Your task to perform on an android device: Search for "razer blade" on costco, select the first entry, and add it to the cart. Image 0: 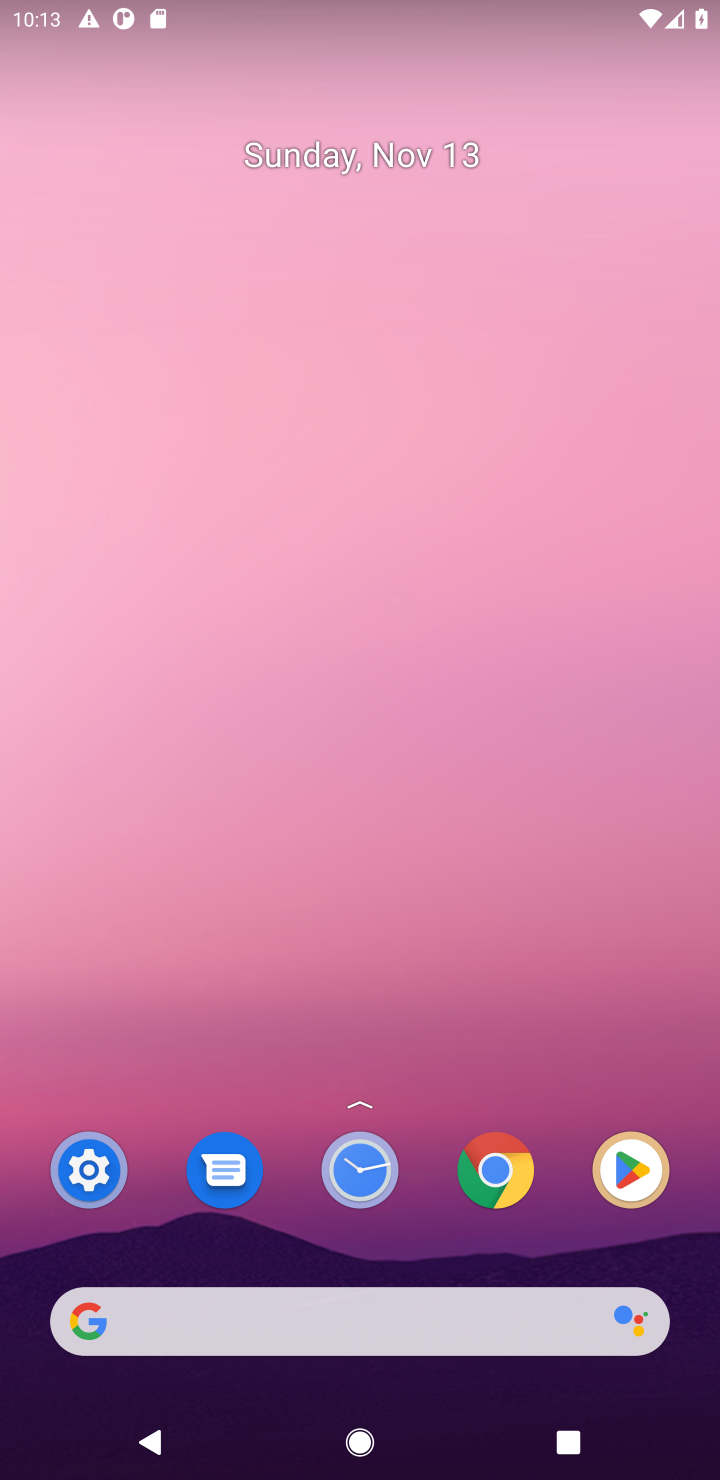
Step 0: click (440, 1316)
Your task to perform on an android device: Search for "razer blade" on costco, select the first entry, and add it to the cart. Image 1: 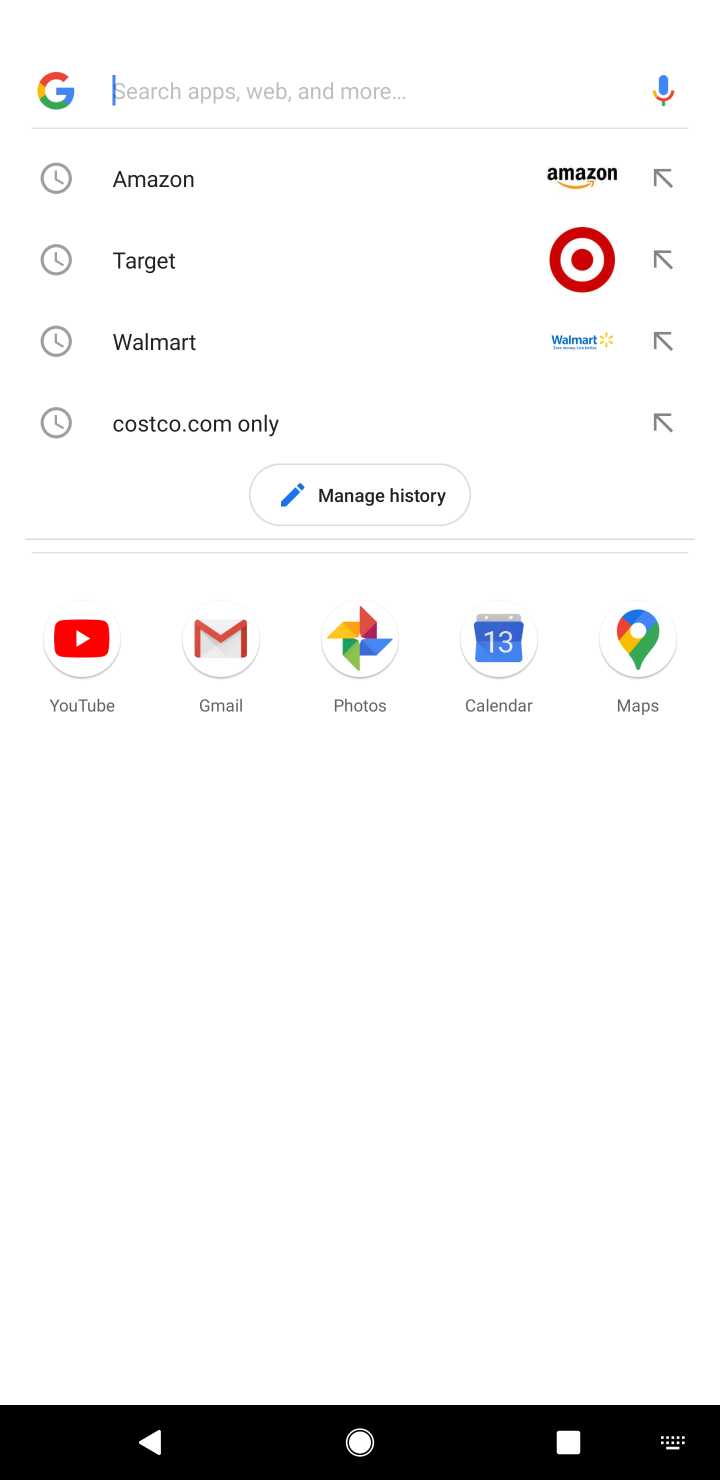
Step 1: type "costco.com"
Your task to perform on an android device: Search for "razer blade" on costco, select the first entry, and add it to the cart. Image 2: 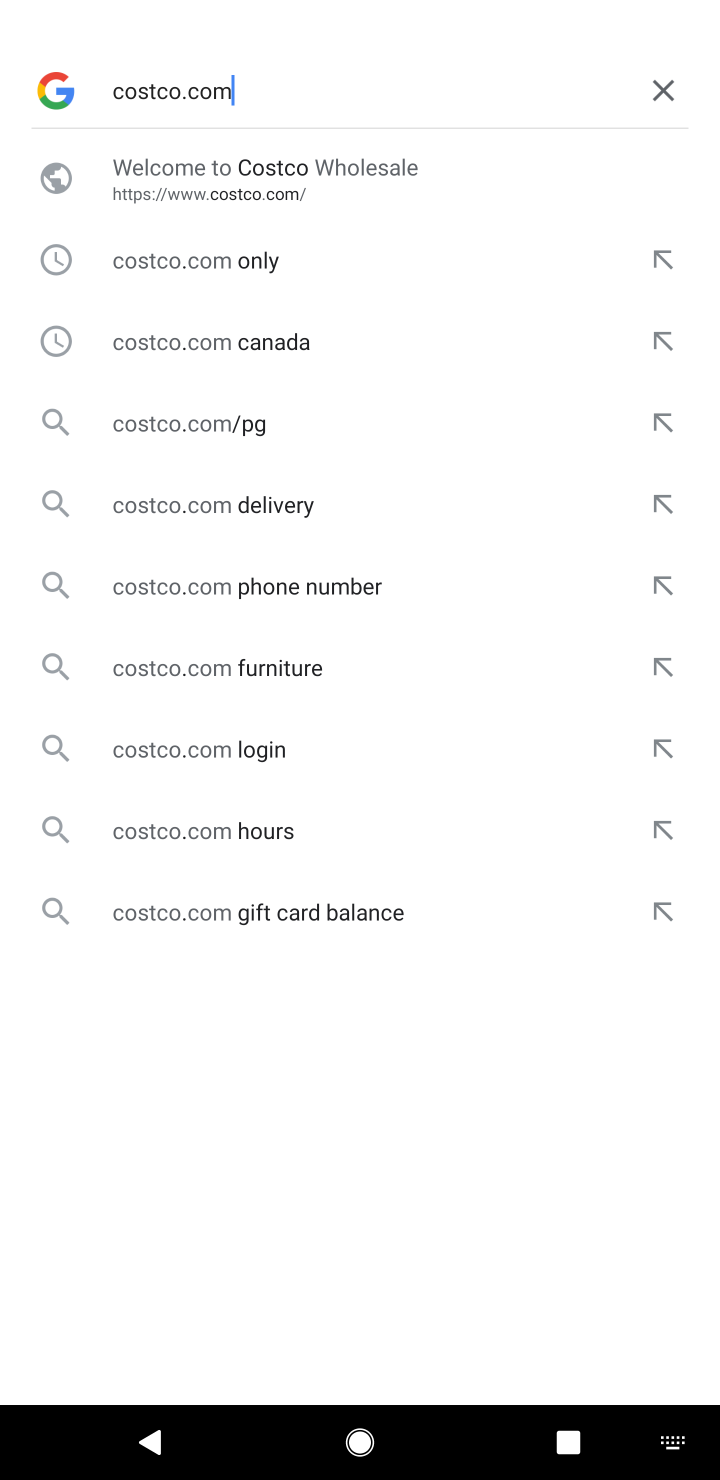
Step 2: click (277, 205)
Your task to perform on an android device: Search for "razer blade" on costco, select the first entry, and add it to the cart. Image 3: 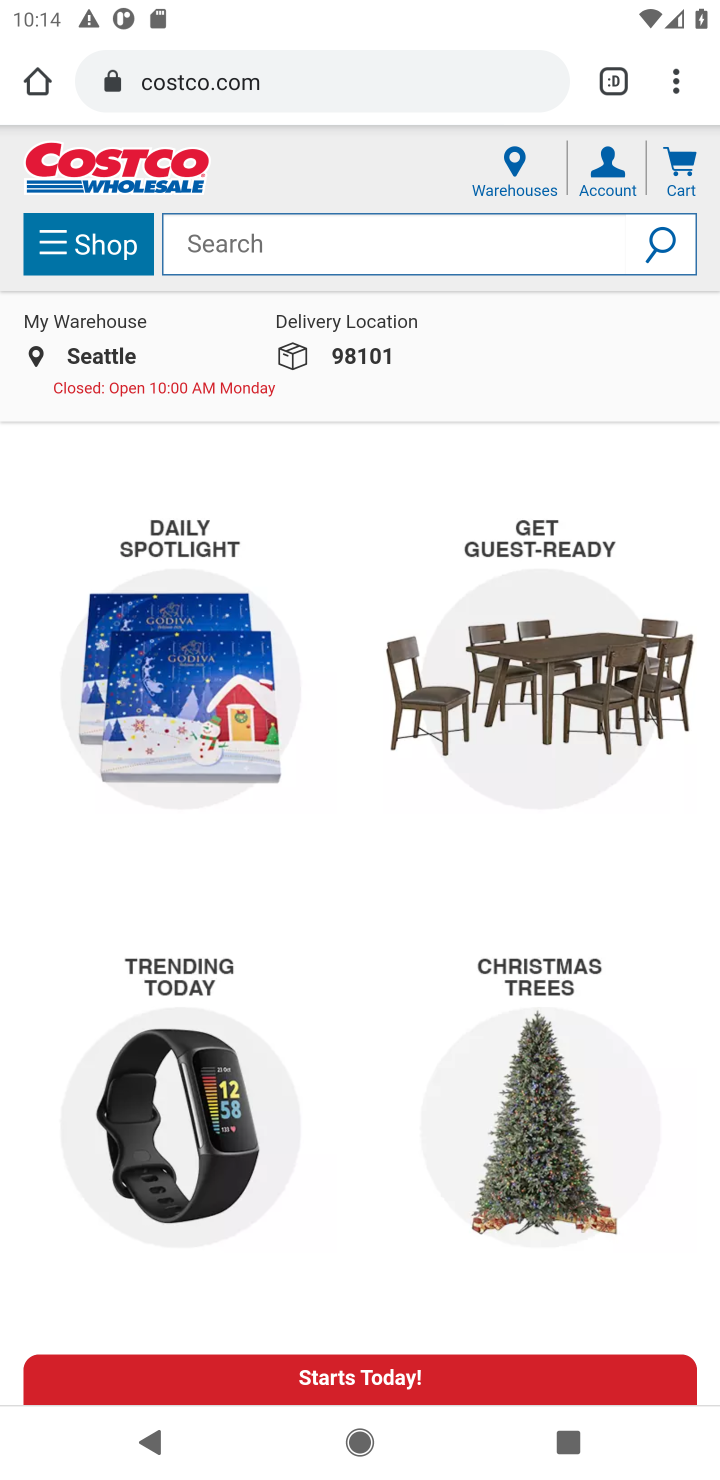
Step 3: task complete